Your task to perform on an android device: toggle priority inbox in the gmail app Image 0: 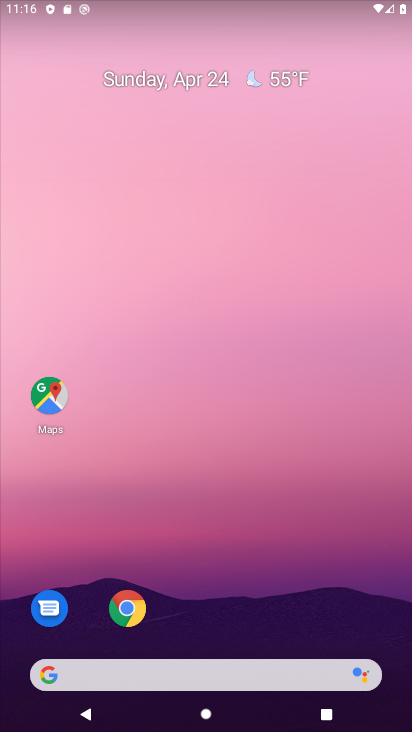
Step 0: drag from (202, 572) to (266, 190)
Your task to perform on an android device: toggle priority inbox in the gmail app Image 1: 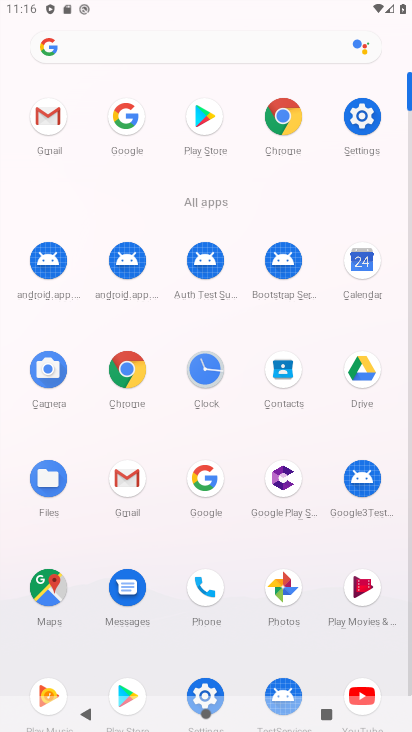
Step 1: click (54, 109)
Your task to perform on an android device: toggle priority inbox in the gmail app Image 2: 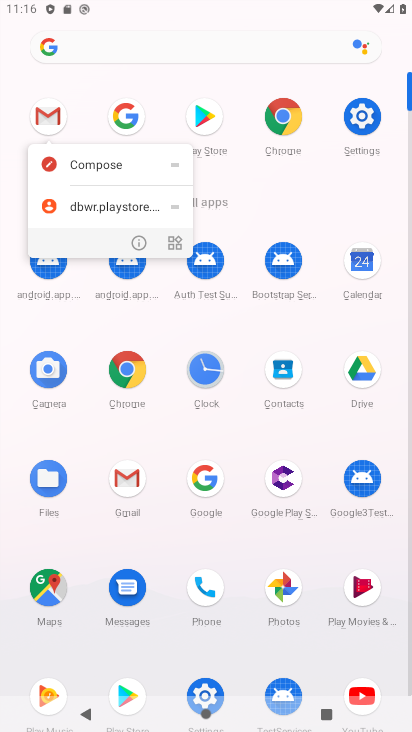
Step 2: click (55, 122)
Your task to perform on an android device: toggle priority inbox in the gmail app Image 3: 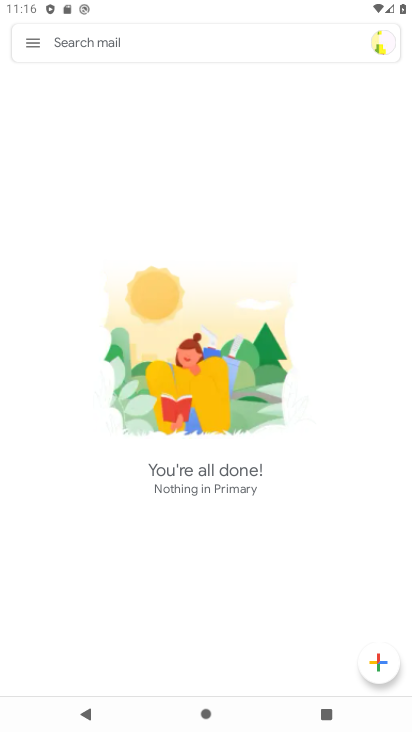
Step 3: click (28, 43)
Your task to perform on an android device: toggle priority inbox in the gmail app Image 4: 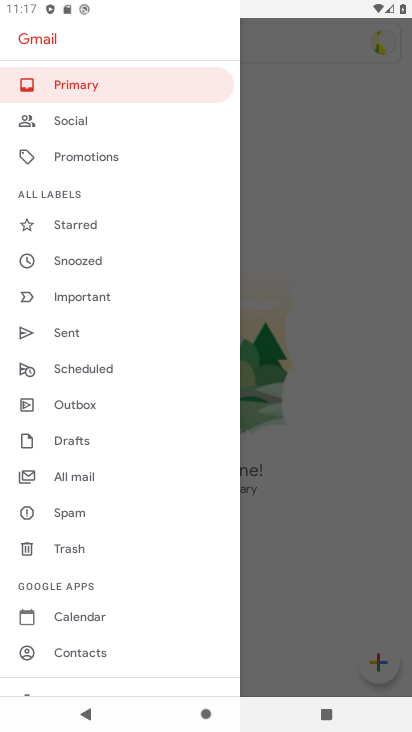
Step 4: drag from (89, 630) to (236, 93)
Your task to perform on an android device: toggle priority inbox in the gmail app Image 5: 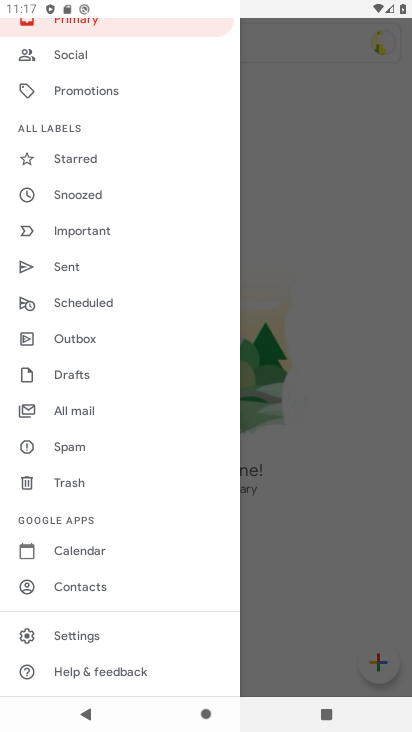
Step 5: click (106, 633)
Your task to perform on an android device: toggle priority inbox in the gmail app Image 6: 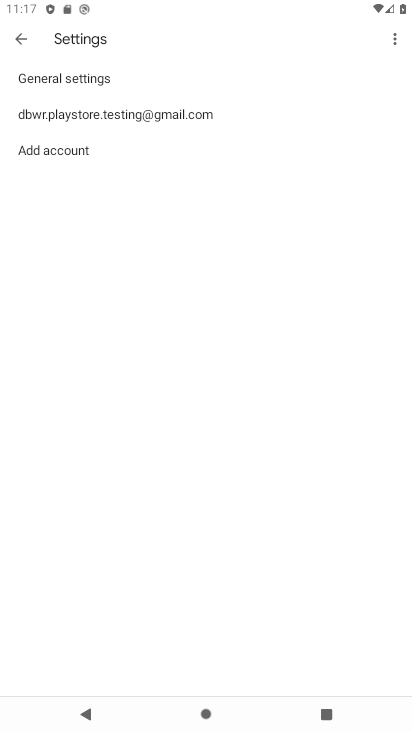
Step 6: click (110, 115)
Your task to perform on an android device: toggle priority inbox in the gmail app Image 7: 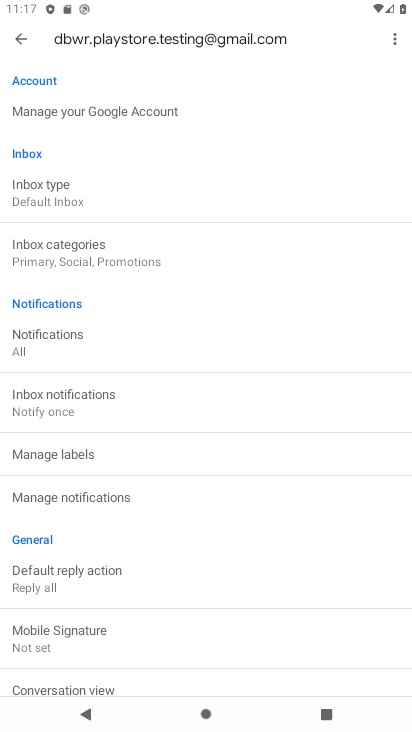
Step 7: click (100, 187)
Your task to perform on an android device: toggle priority inbox in the gmail app Image 8: 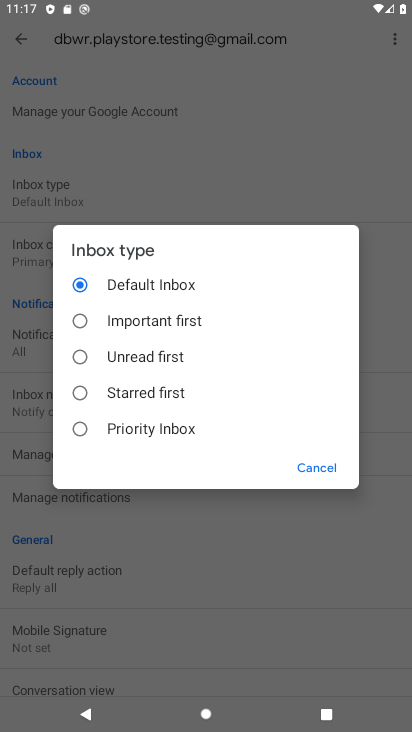
Step 8: click (84, 425)
Your task to perform on an android device: toggle priority inbox in the gmail app Image 9: 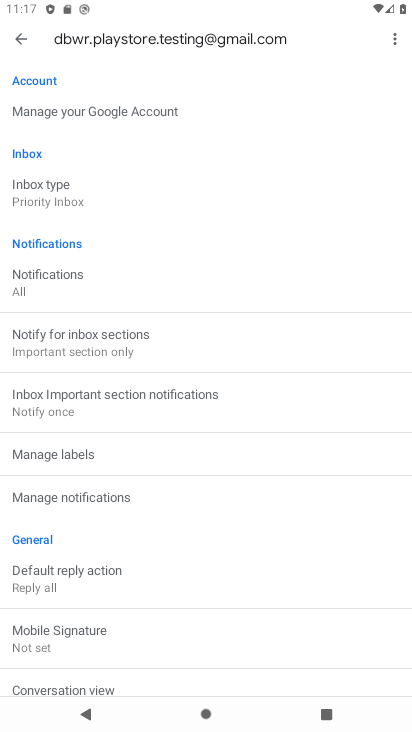
Step 9: task complete